Your task to perform on an android device: turn off notifications in google photos Image 0: 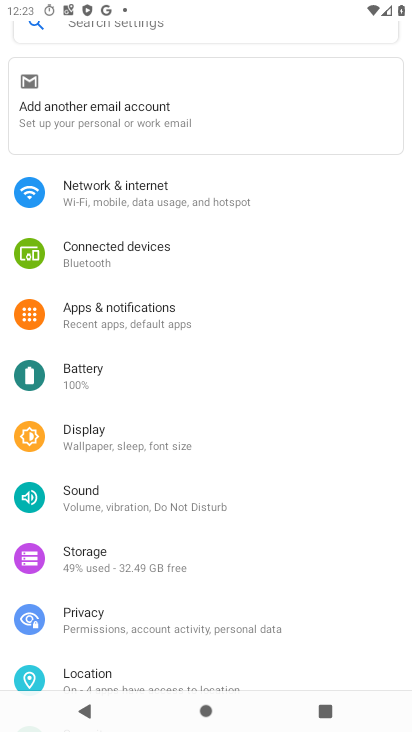
Step 0: press home button
Your task to perform on an android device: turn off notifications in google photos Image 1: 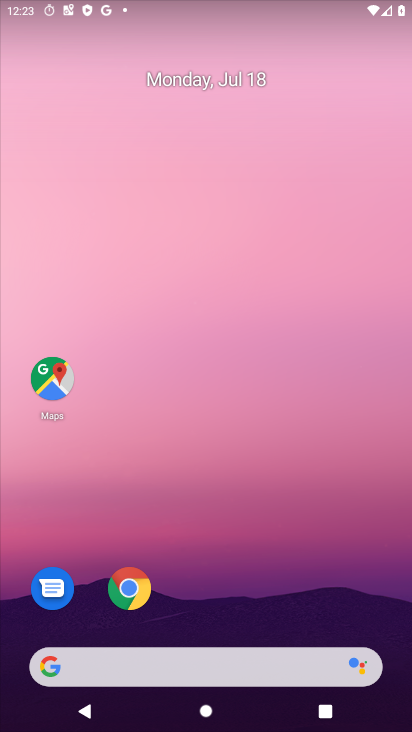
Step 1: drag from (270, 590) to (289, 61)
Your task to perform on an android device: turn off notifications in google photos Image 2: 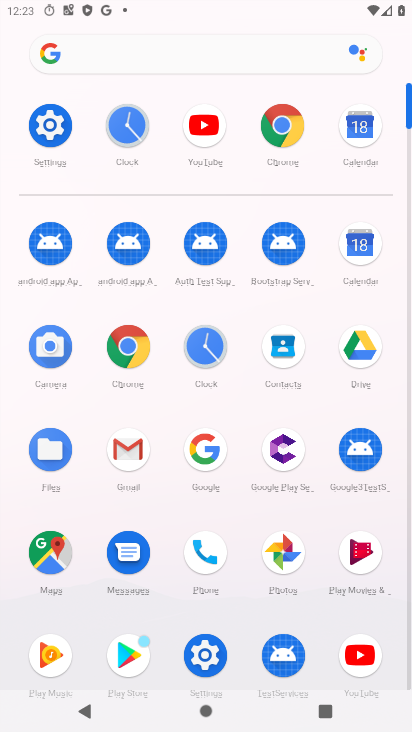
Step 2: click (286, 547)
Your task to perform on an android device: turn off notifications in google photos Image 3: 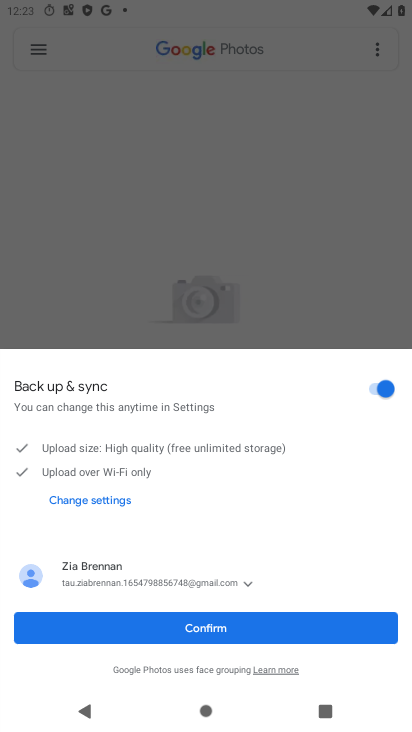
Step 3: click (225, 623)
Your task to perform on an android device: turn off notifications in google photos Image 4: 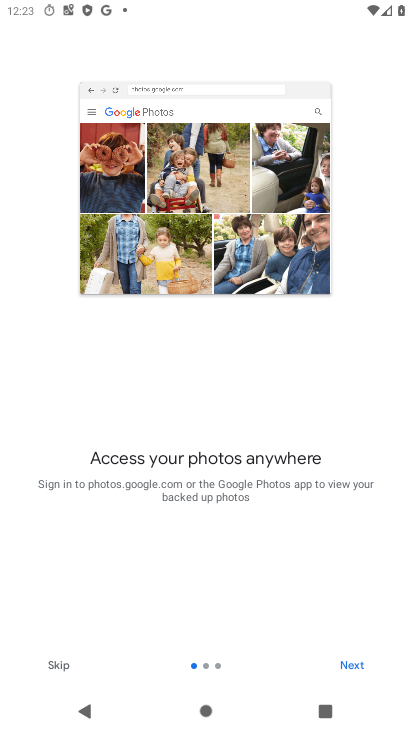
Step 4: click (42, 661)
Your task to perform on an android device: turn off notifications in google photos Image 5: 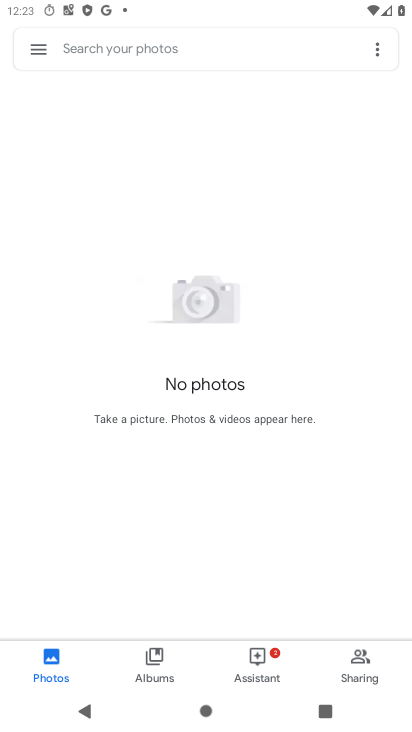
Step 5: click (37, 53)
Your task to perform on an android device: turn off notifications in google photos Image 6: 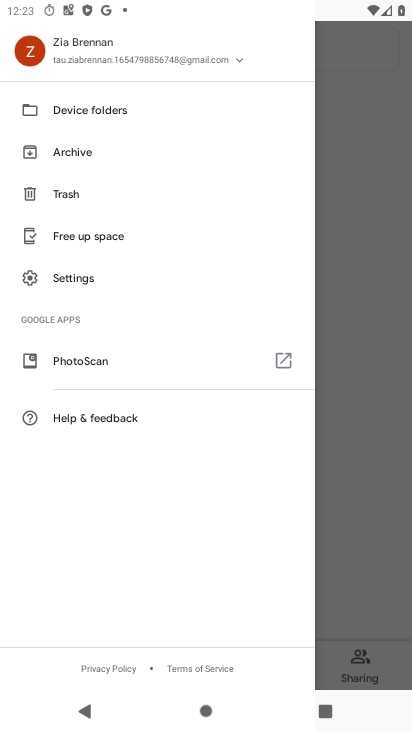
Step 6: click (103, 281)
Your task to perform on an android device: turn off notifications in google photos Image 7: 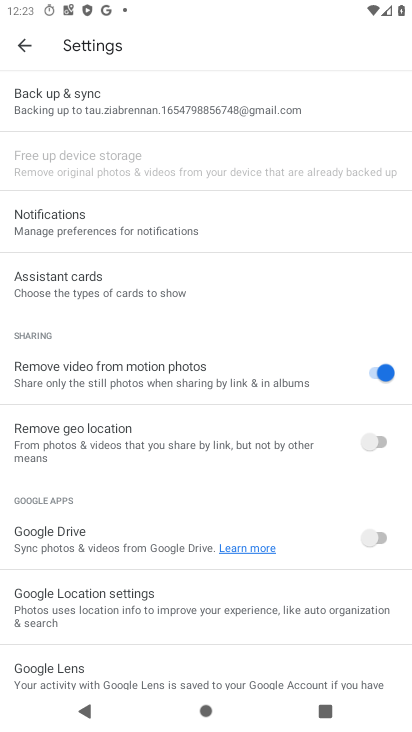
Step 7: click (141, 220)
Your task to perform on an android device: turn off notifications in google photos Image 8: 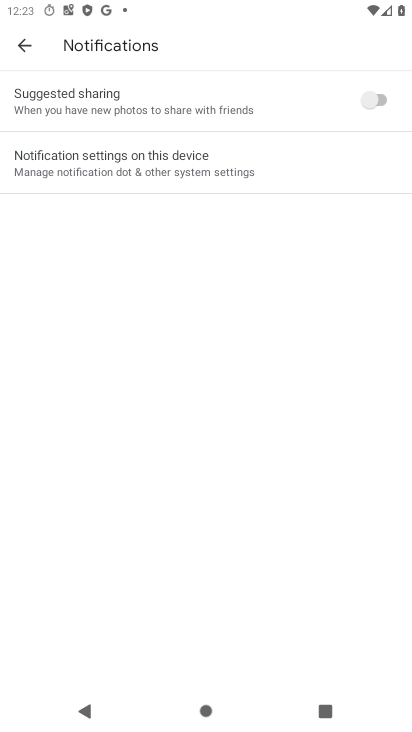
Step 8: click (222, 161)
Your task to perform on an android device: turn off notifications in google photos Image 9: 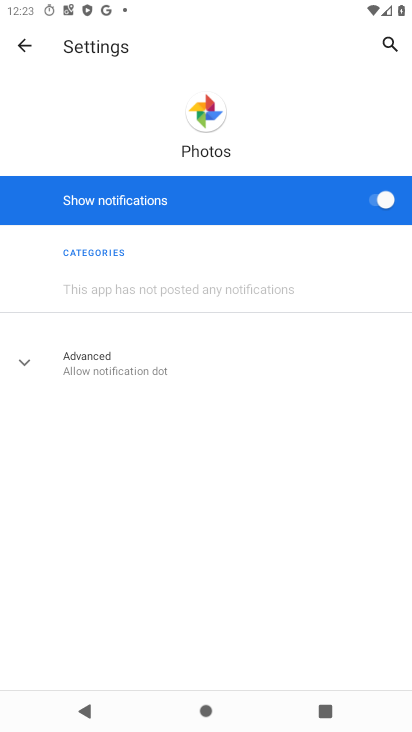
Step 9: click (389, 188)
Your task to perform on an android device: turn off notifications in google photos Image 10: 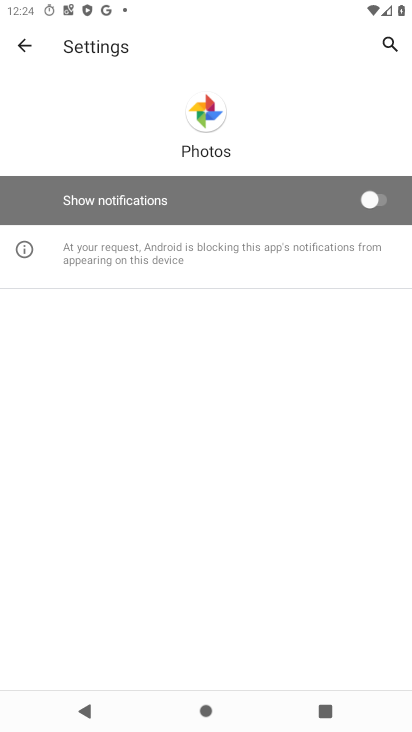
Step 10: task complete